Your task to perform on an android device: Add "razer thresher" to the cart on costco.com Image 0: 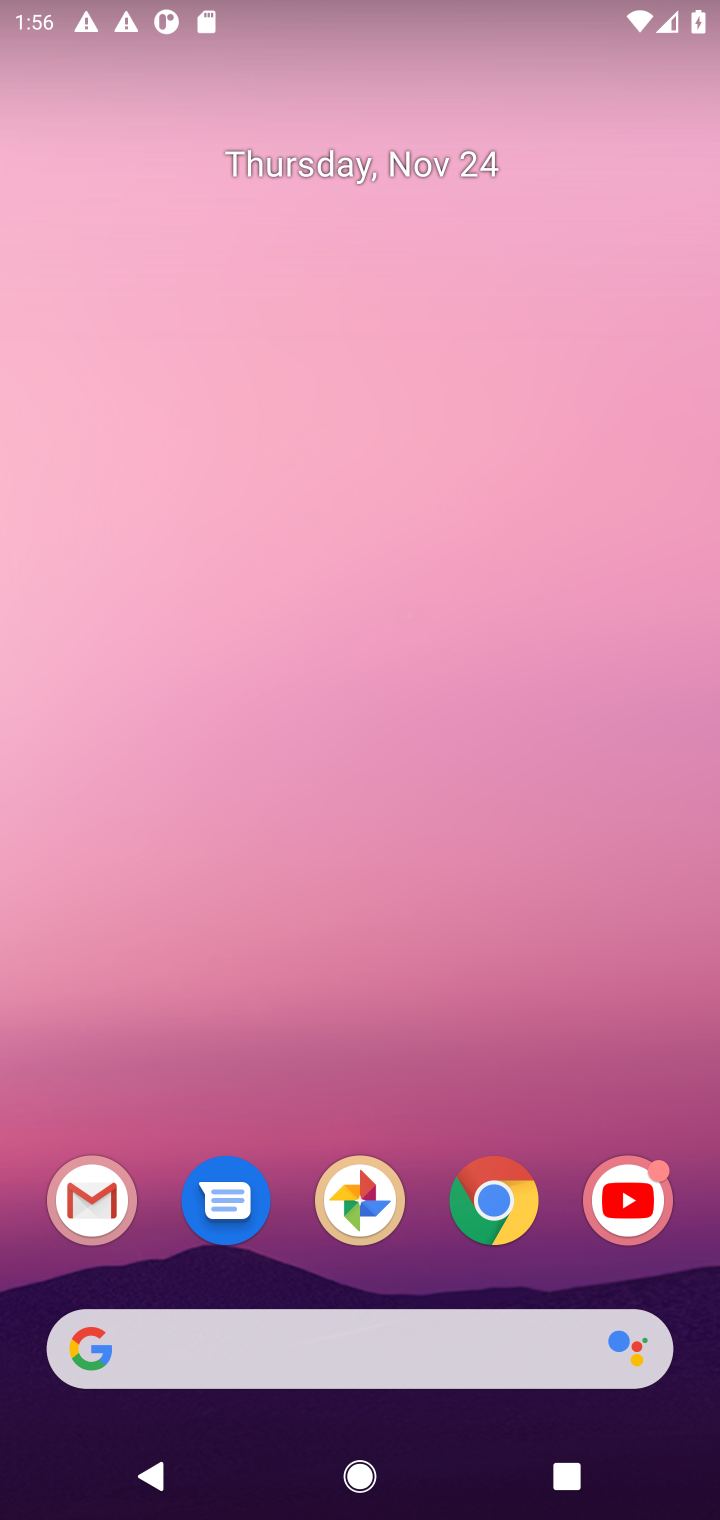
Step 0: click (234, 1339)
Your task to perform on an android device: Add "razer thresher" to the cart on costco.com Image 1: 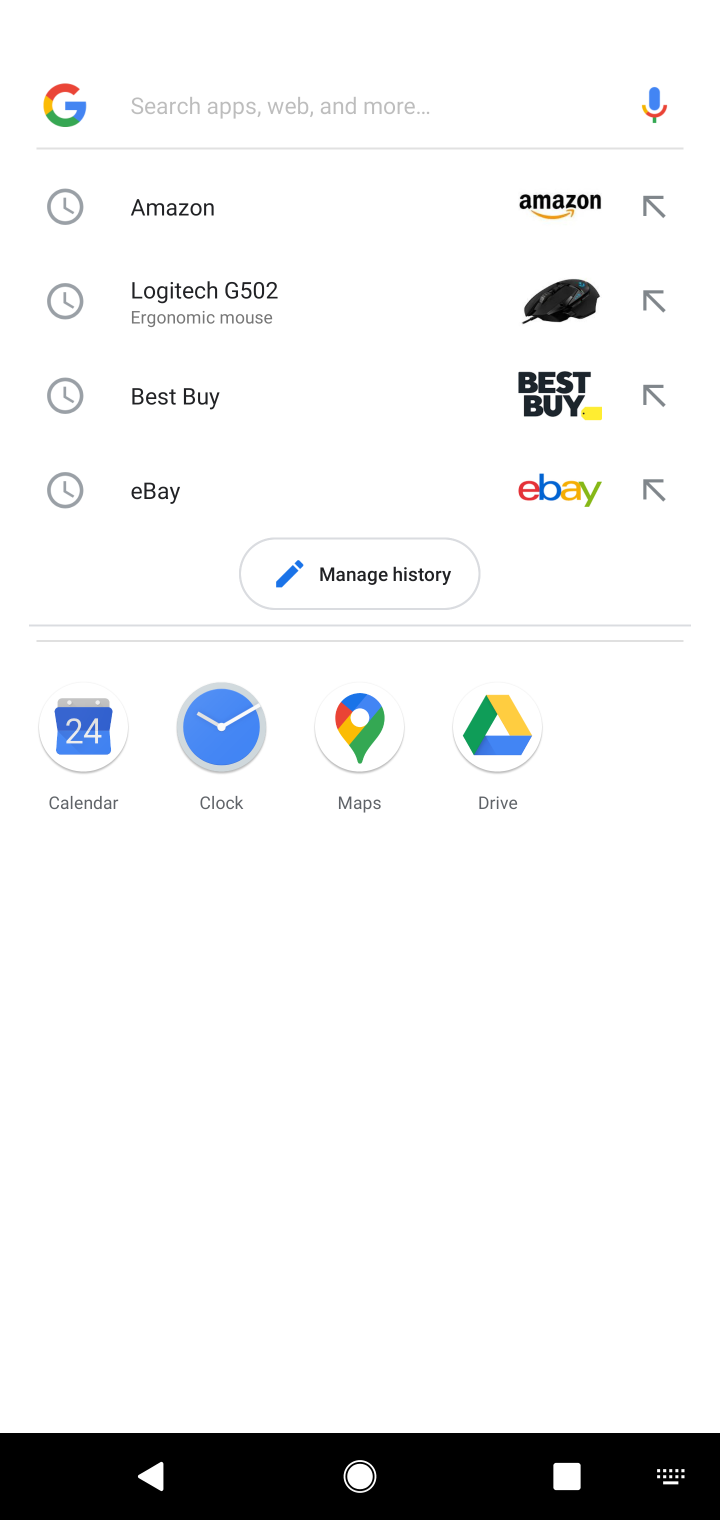
Step 1: type "costco.com"
Your task to perform on an android device: Add "razer thresher" to the cart on costco.com Image 2: 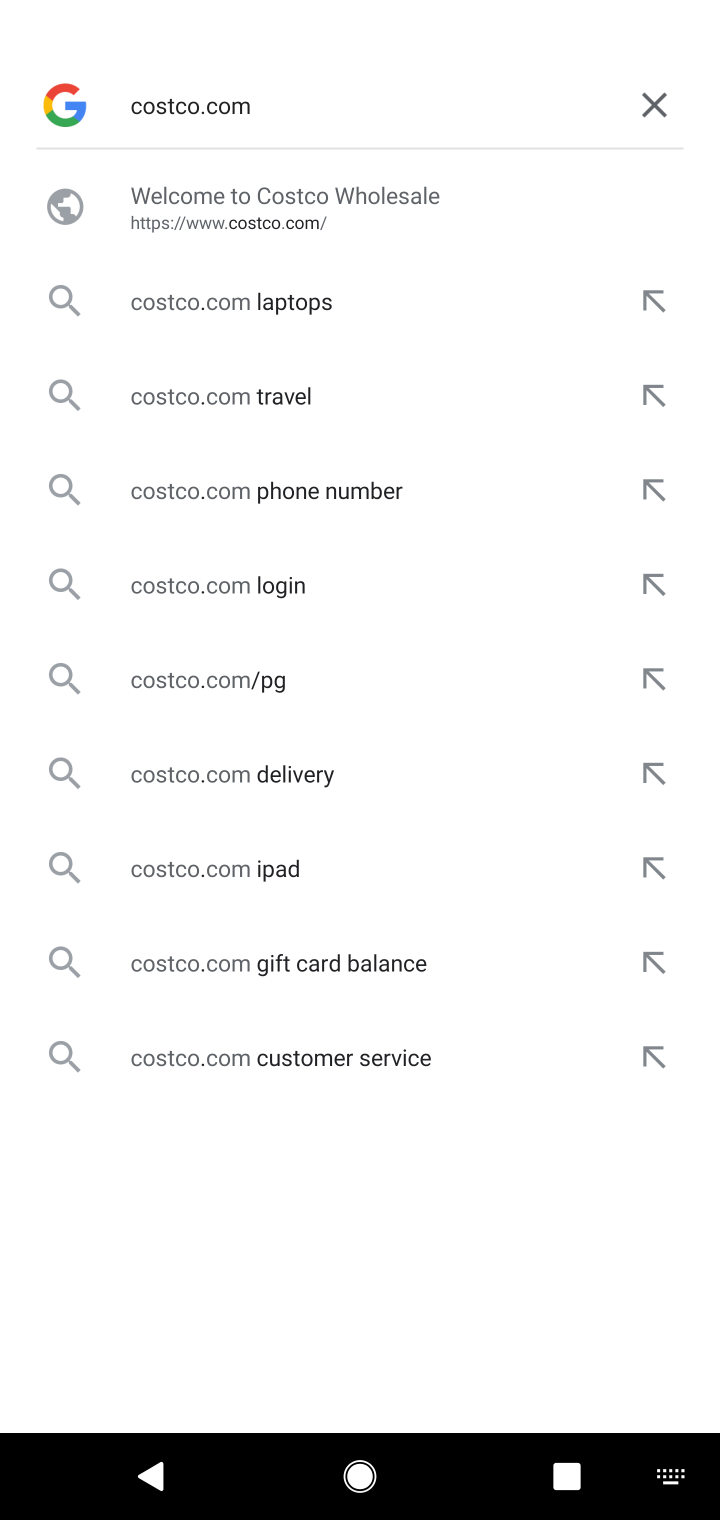
Step 2: click (327, 232)
Your task to perform on an android device: Add "razer thresher" to the cart on costco.com Image 3: 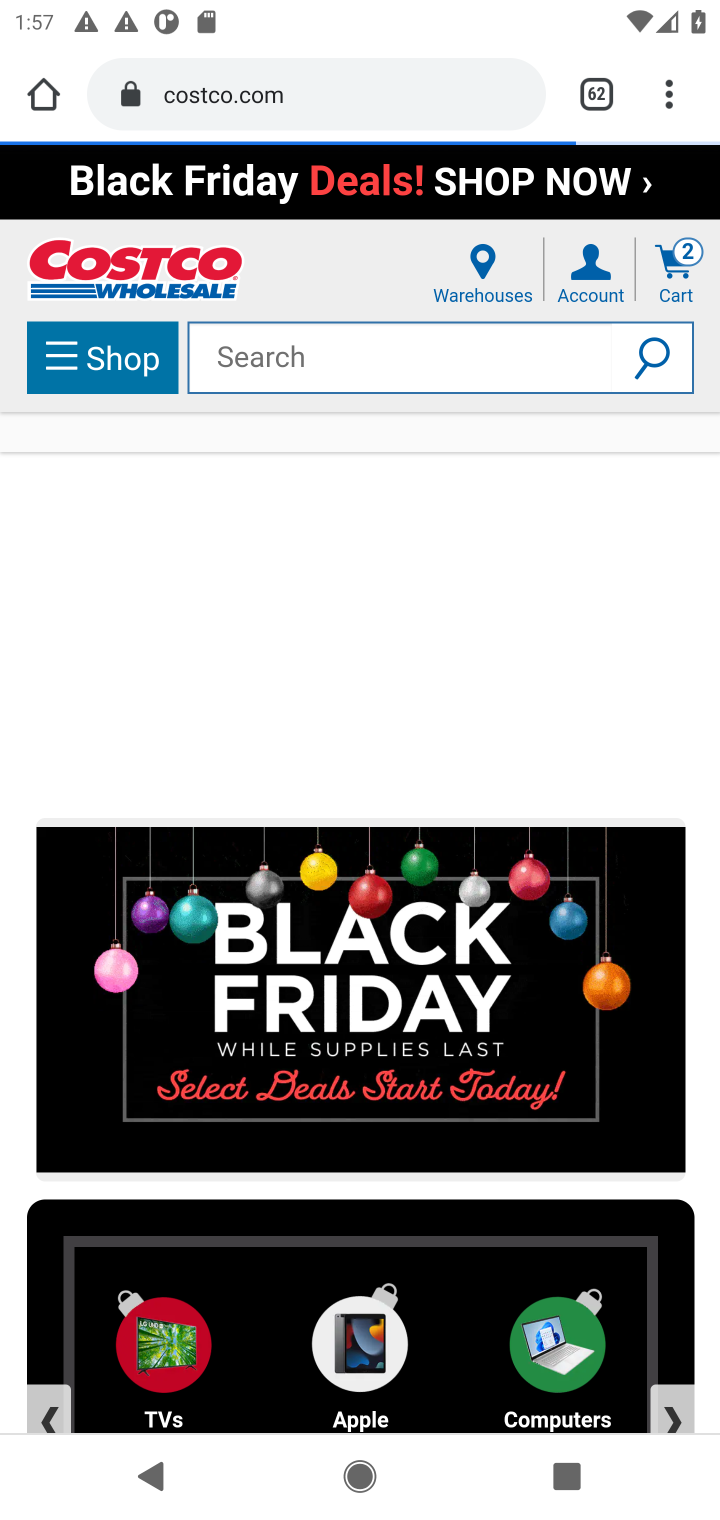
Step 3: click (369, 360)
Your task to perform on an android device: Add "razer thresher" to the cart on costco.com Image 4: 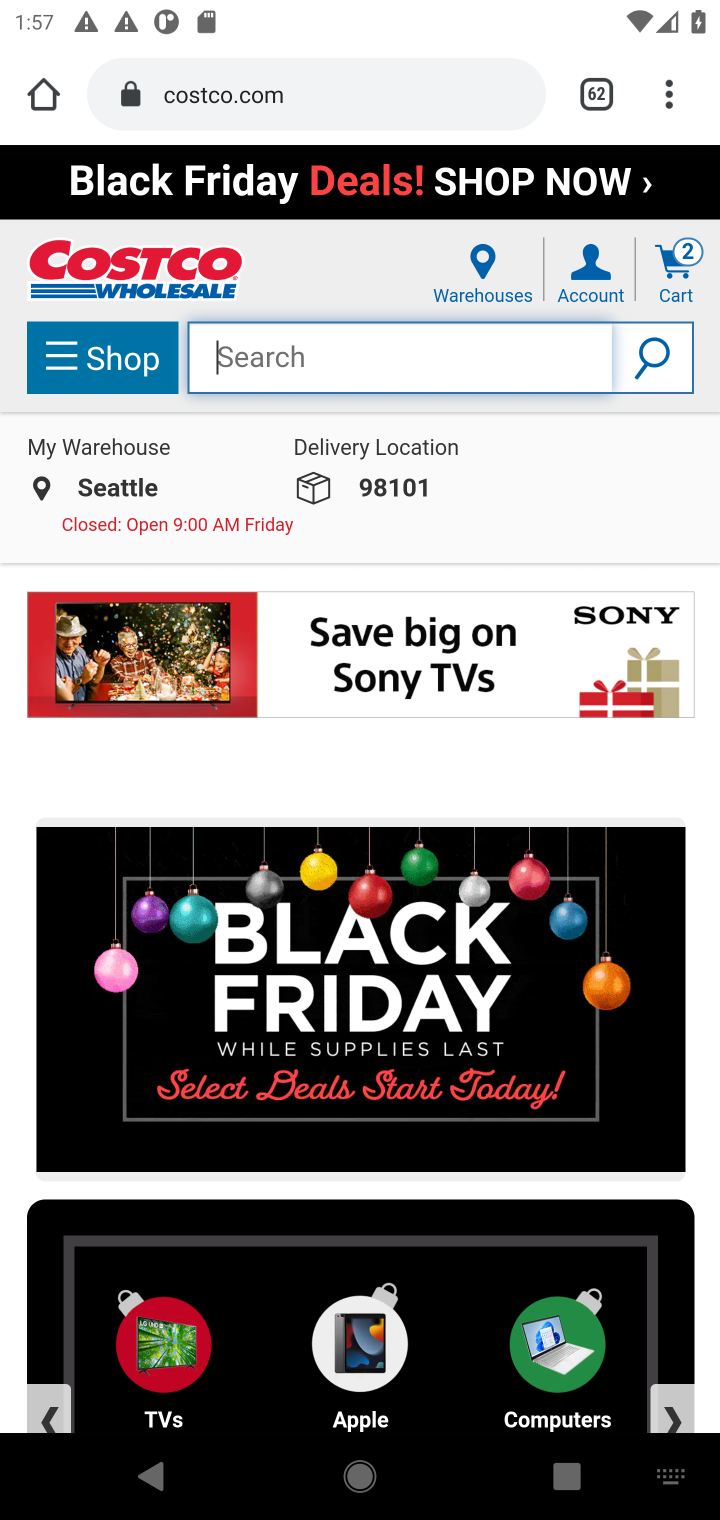
Step 4: type "razer thresher"
Your task to perform on an android device: Add "razer thresher" to the cart on costco.com Image 5: 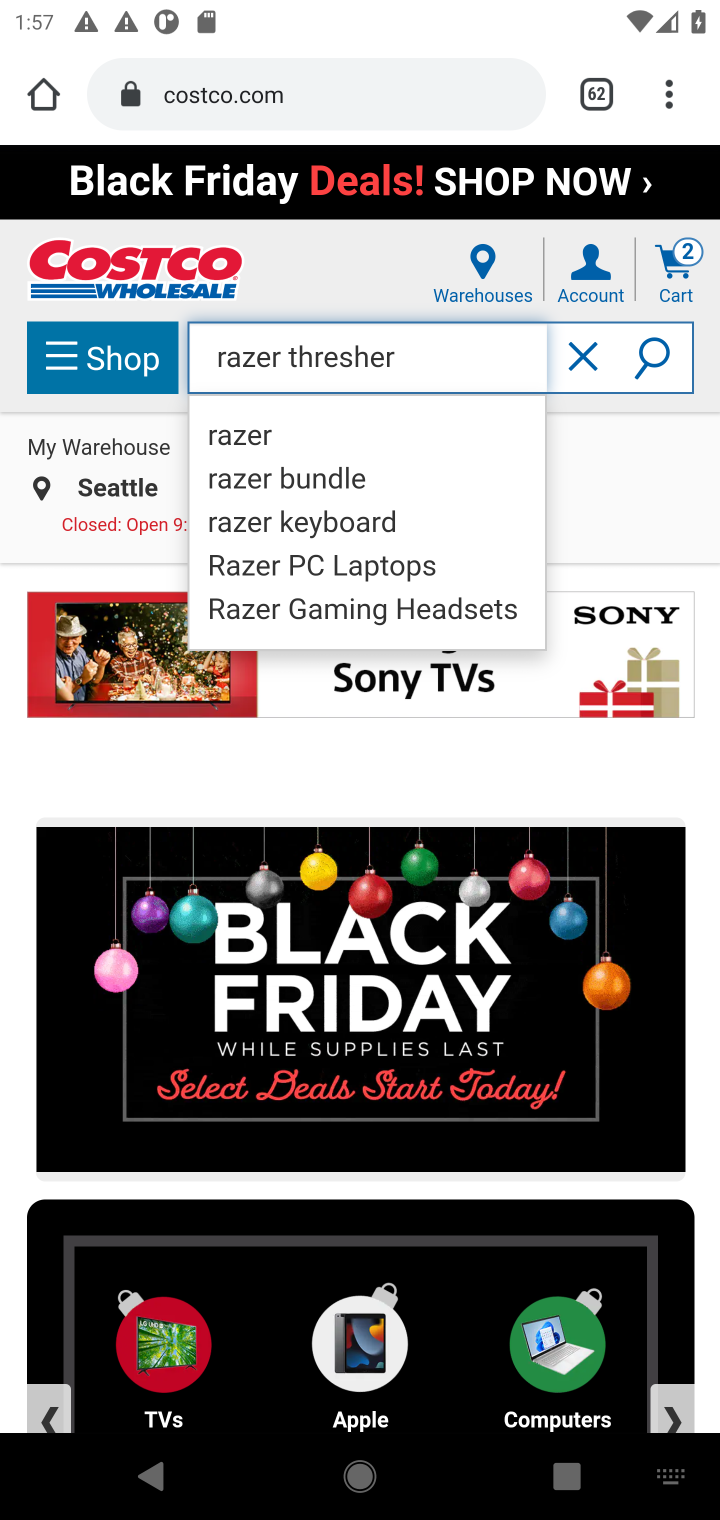
Step 5: click (672, 347)
Your task to perform on an android device: Add "razer thresher" to the cart on costco.com Image 6: 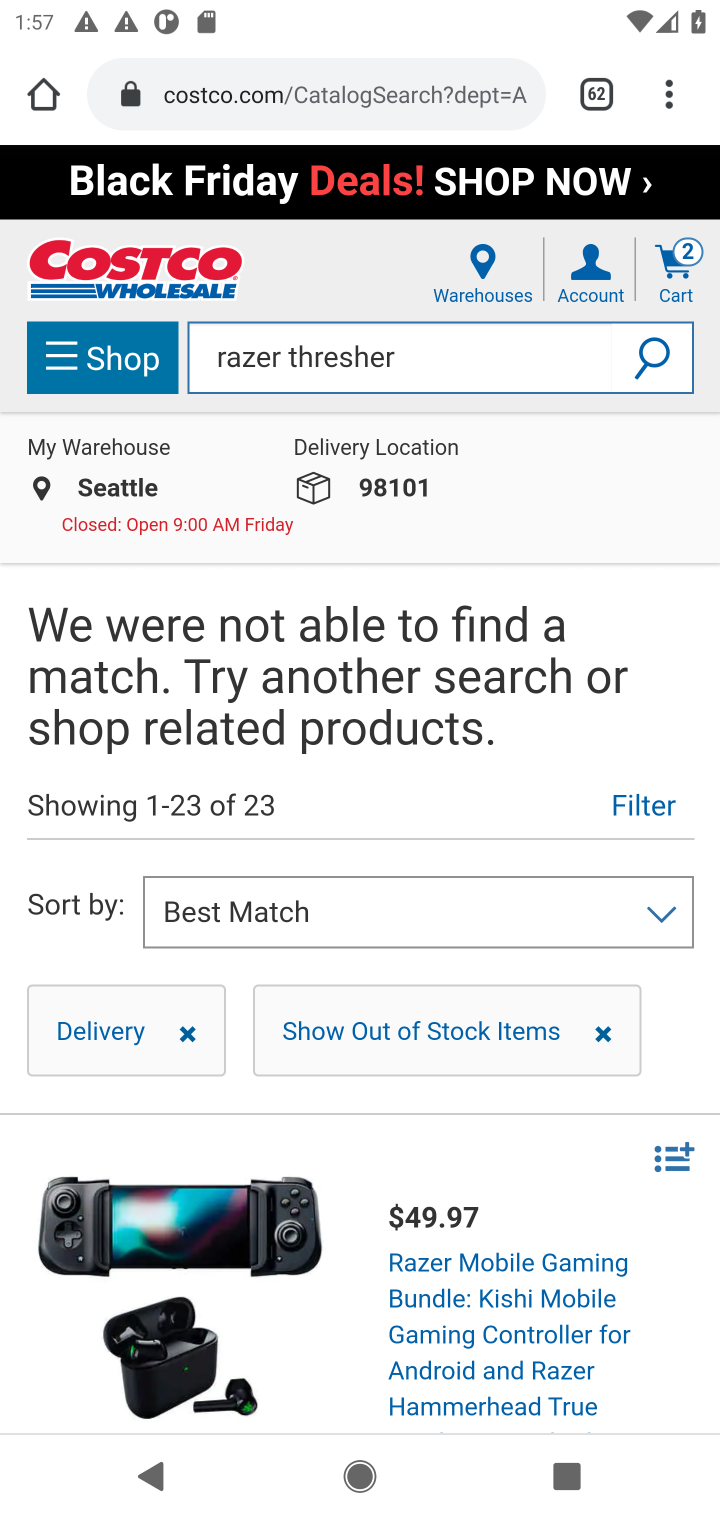
Step 6: task complete